Your task to perform on an android device: Search for sushi restaurants on Maps Image 0: 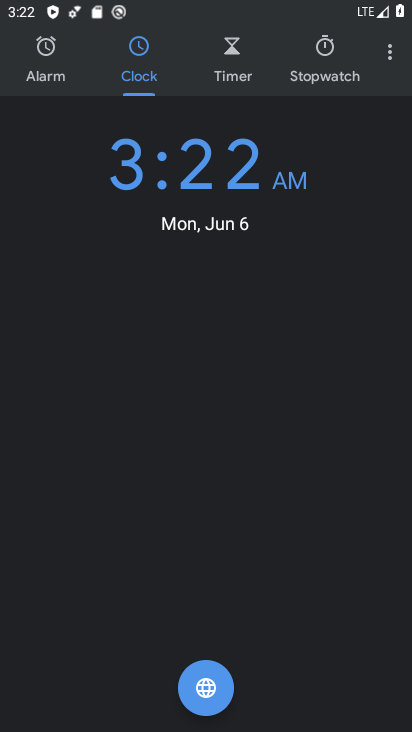
Step 0: press home button
Your task to perform on an android device: Search for sushi restaurants on Maps Image 1: 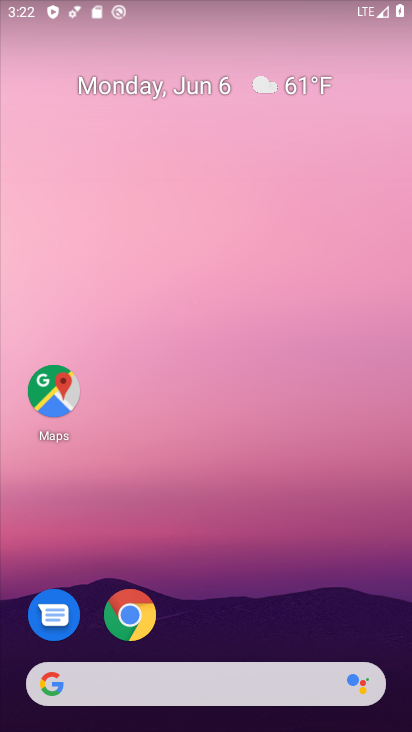
Step 1: click (55, 392)
Your task to perform on an android device: Search for sushi restaurants on Maps Image 2: 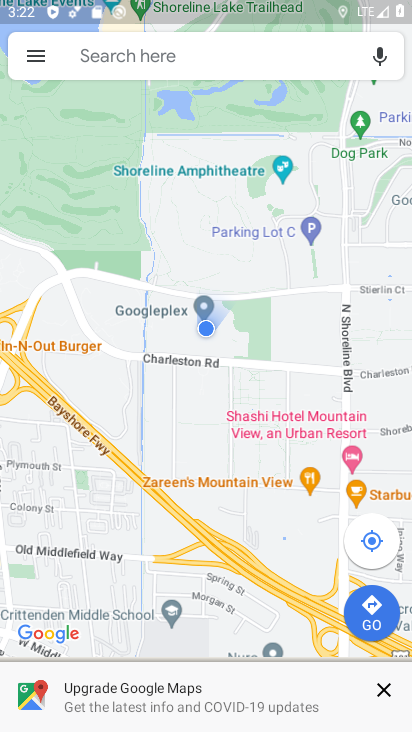
Step 2: click (141, 51)
Your task to perform on an android device: Search for sushi restaurants on Maps Image 3: 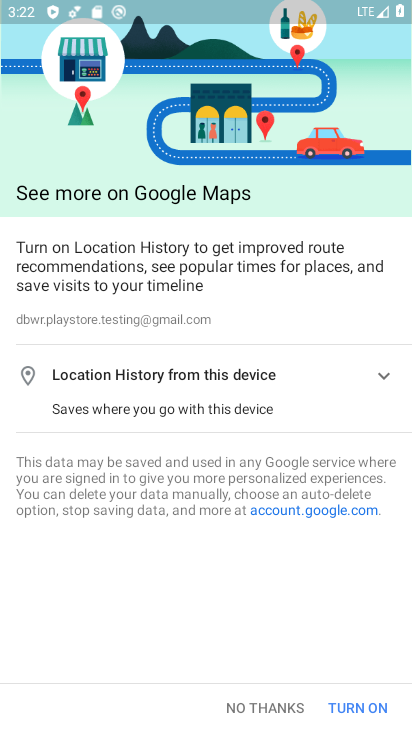
Step 3: type "sushi restaurants"
Your task to perform on an android device: Search for sushi restaurants on Maps Image 4: 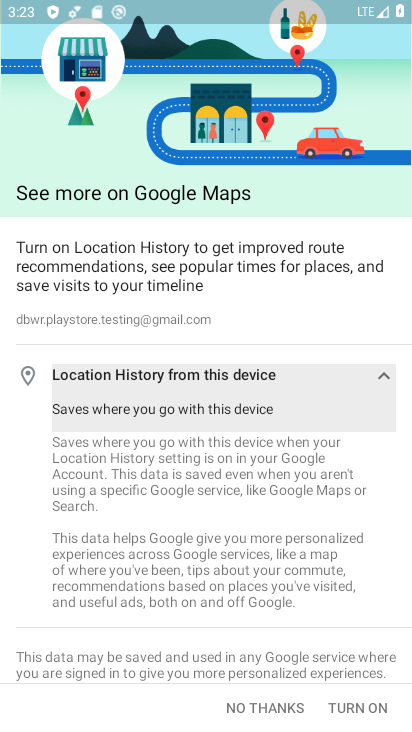
Step 4: click (253, 703)
Your task to perform on an android device: Search for sushi restaurants on Maps Image 5: 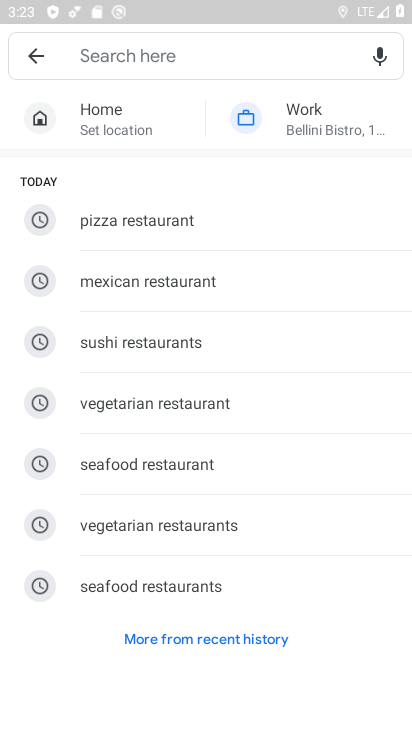
Step 5: click (132, 339)
Your task to perform on an android device: Search for sushi restaurants on Maps Image 6: 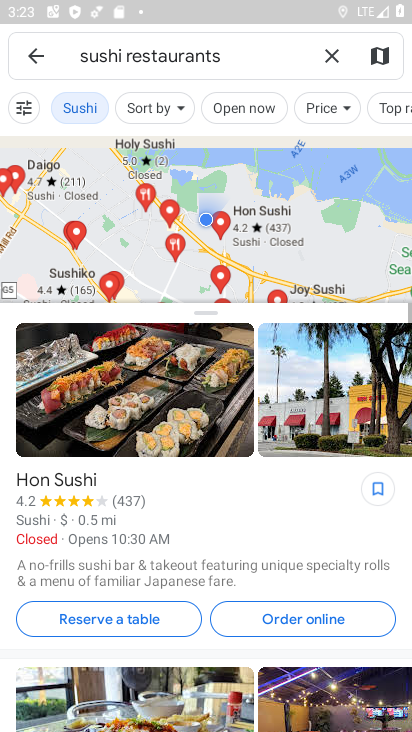
Step 6: task complete